Your task to perform on an android device: check battery use Image 0: 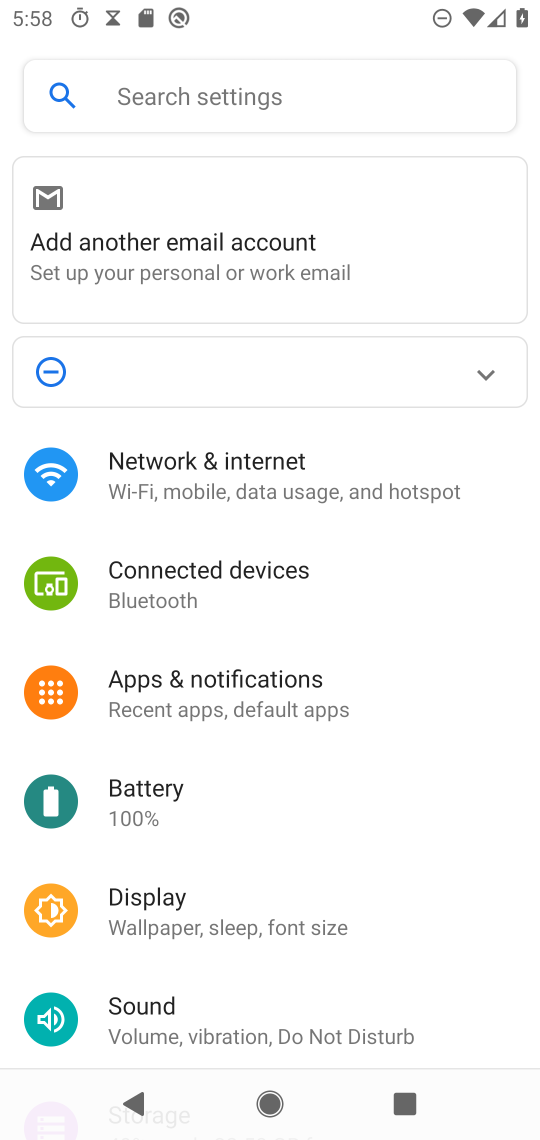
Step 0: press home button
Your task to perform on an android device: check battery use Image 1: 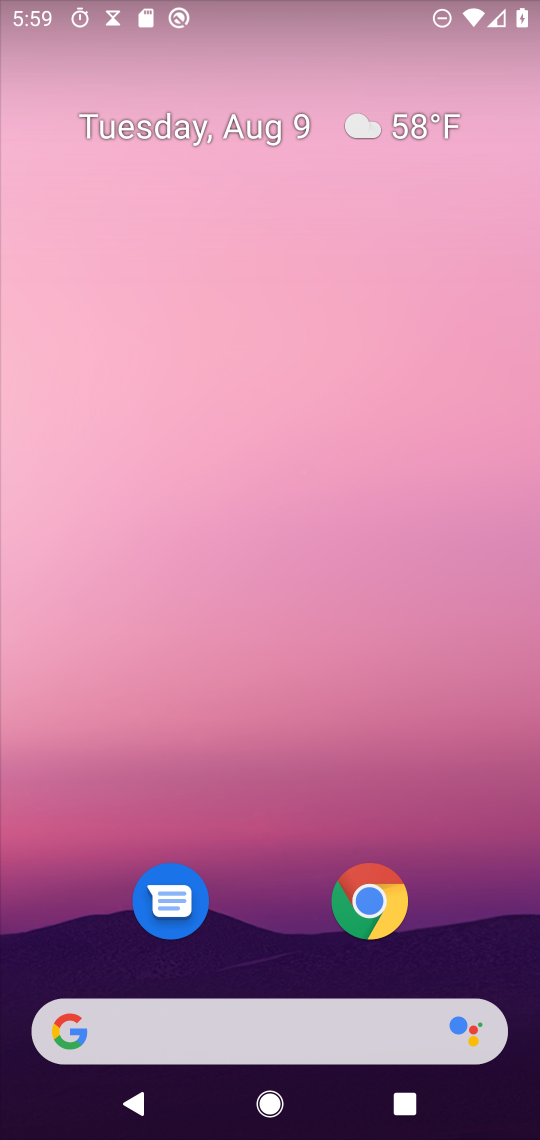
Step 1: drag from (302, 808) to (452, 52)
Your task to perform on an android device: check battery use Image 2: 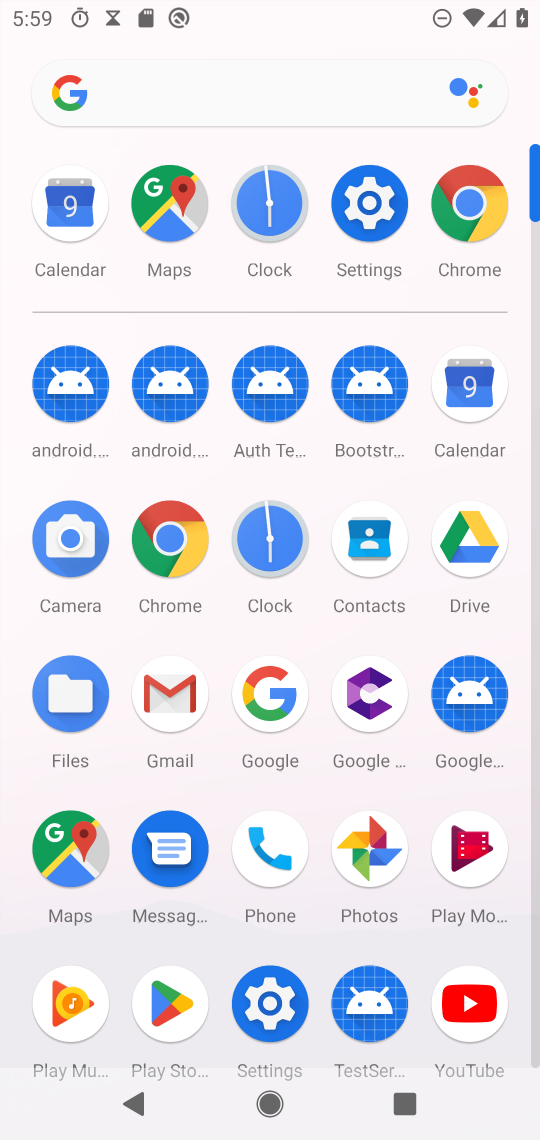
Step 2: click (374, 184)
Your task to perform on an android device: check battery use Image 3: 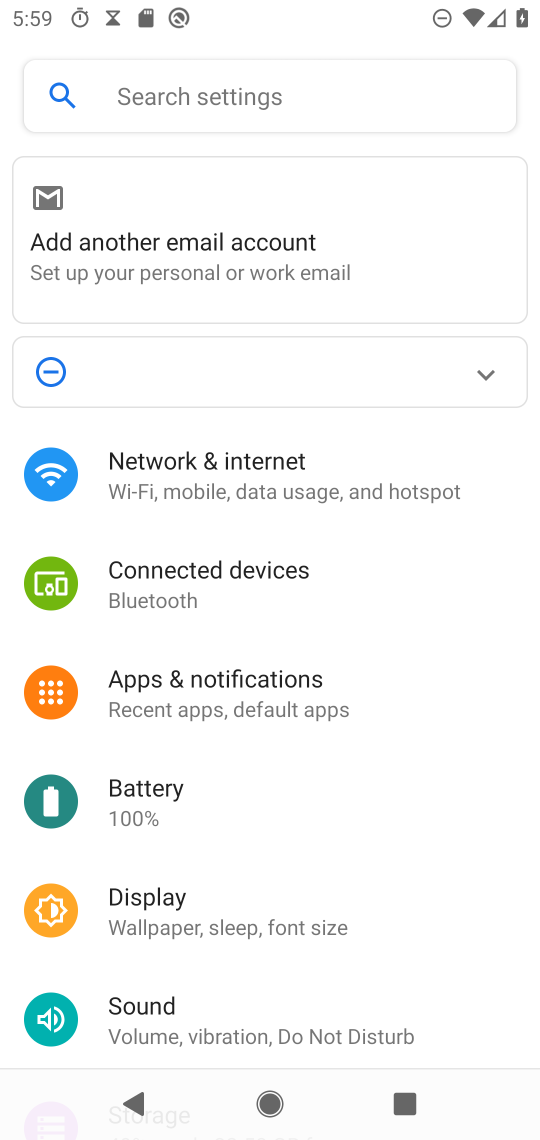
Step 3: click (155, 772)
Your task to perform on an android device: check battery use Image 4: 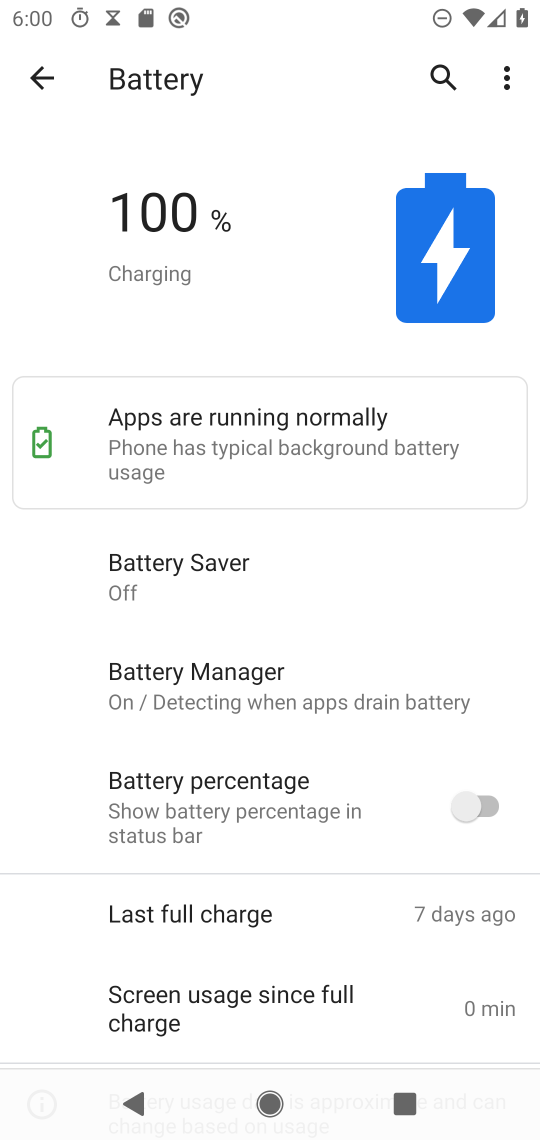
Step 4: task complete